Your task to perform on an android device: open app "Messages" Image 0: 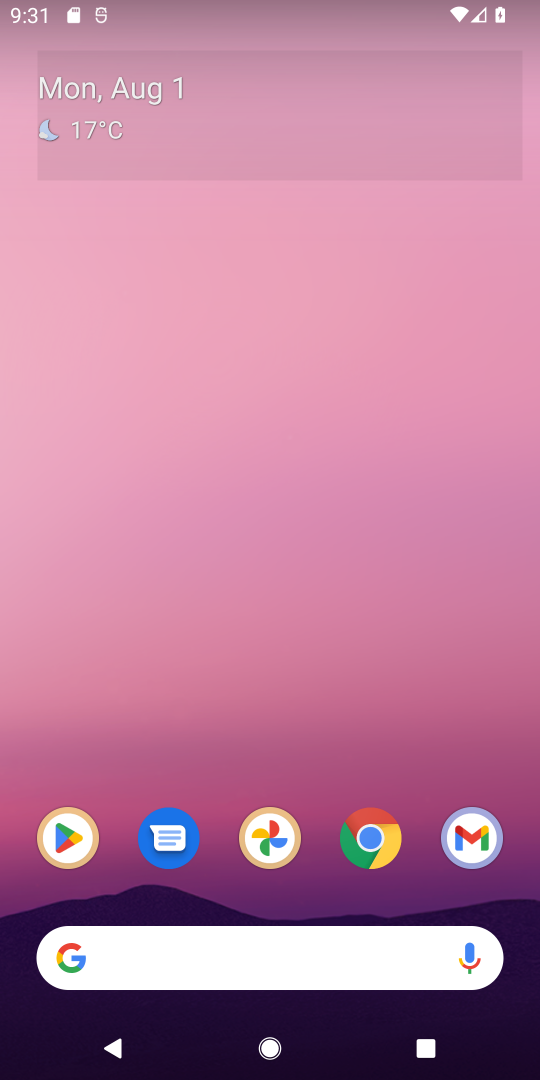
Step 0: press home button
Your task to perform on an android device: open app "Messages" Image 1: 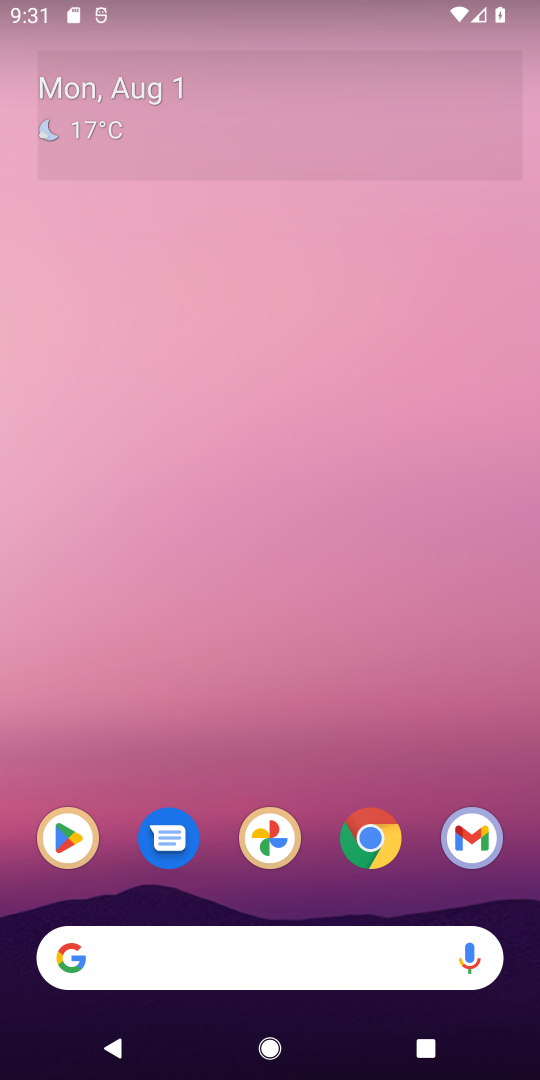
Step 1: click (57, 835)
Your task to perform on an android device: open app "Messages" Image 2: 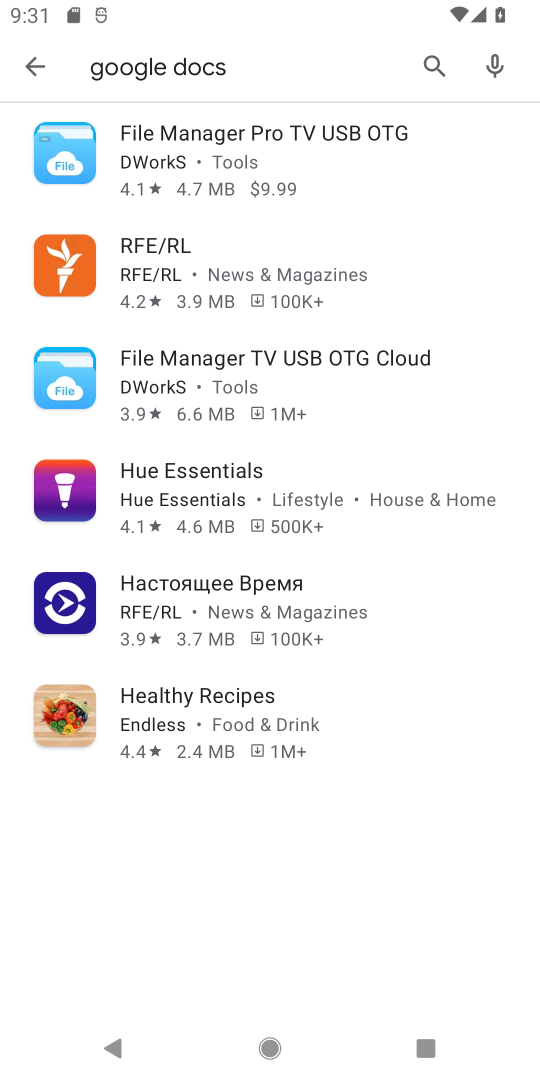
Step 2: click (437, 64)
Your task to perform on an android device: open app "Messages" Image 3: 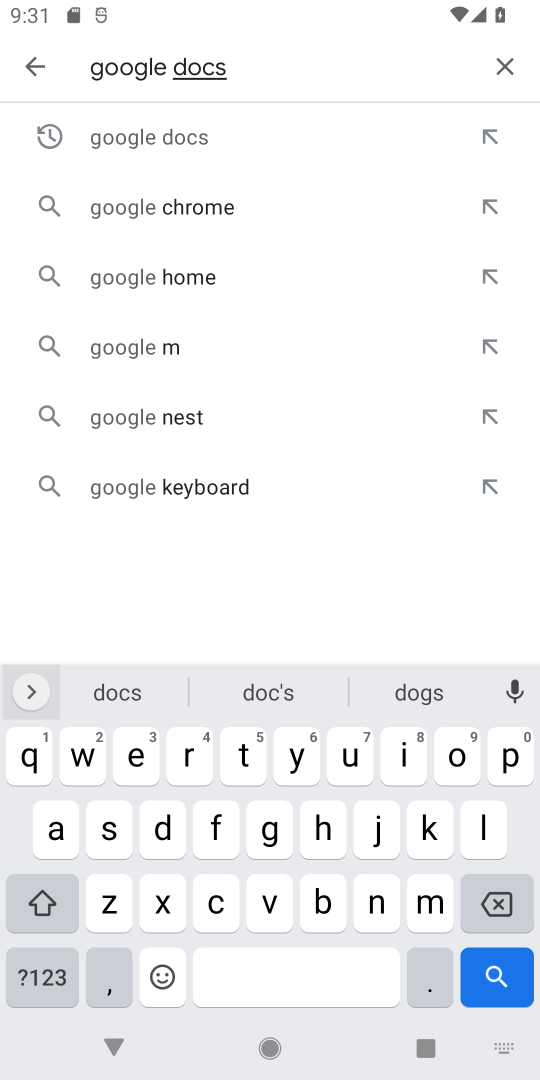
Step 3: click (506, 51)
Your task to perform on an android device: open app "Messages" Image 4: 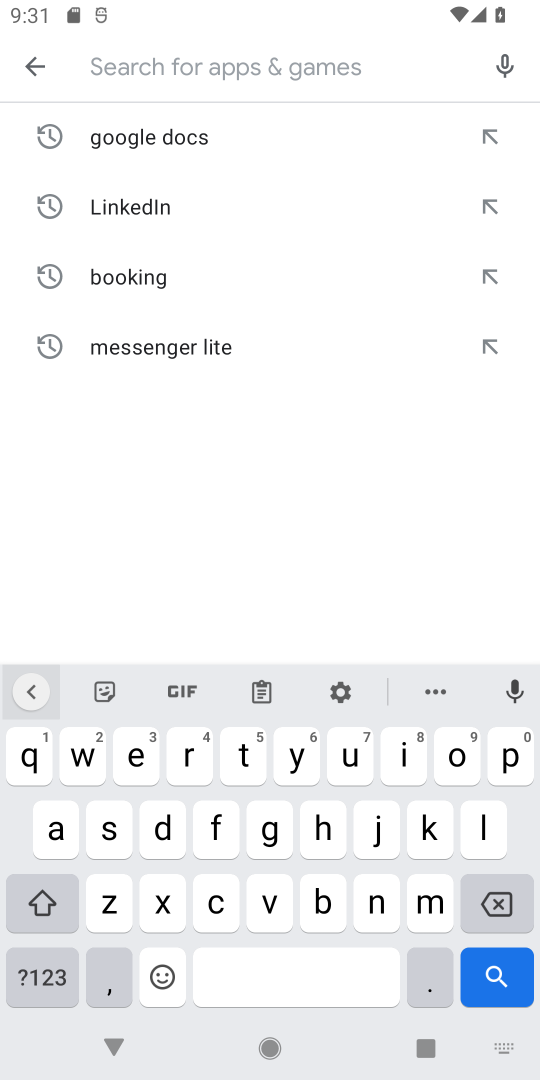
Step 4: type "messeges"
Your task to perform on an android device: open app "Messages" Image 5: 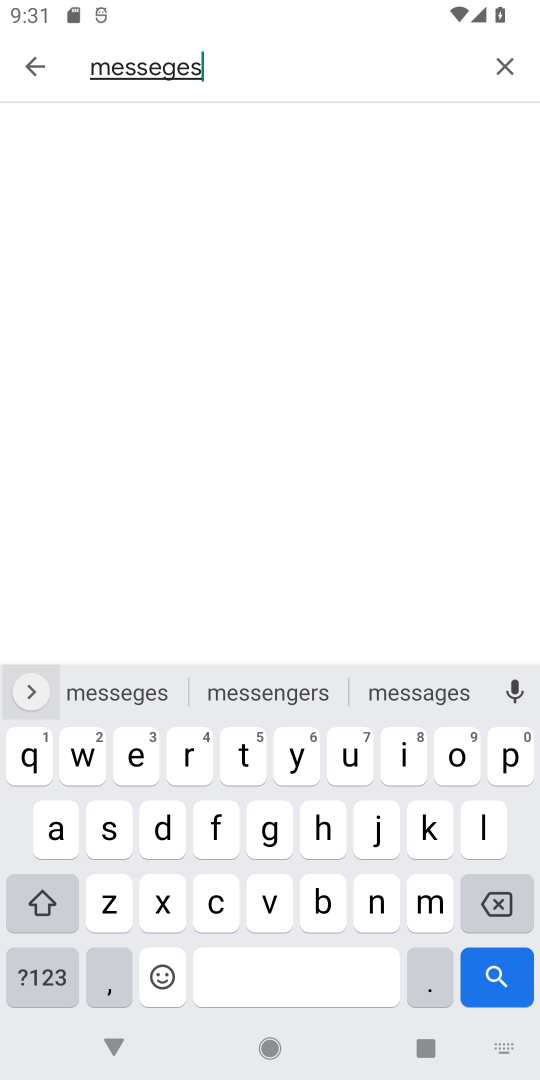
Step 5: click (489, 1000)
Your task to perform on an android device: open app "Messages" Image 6: 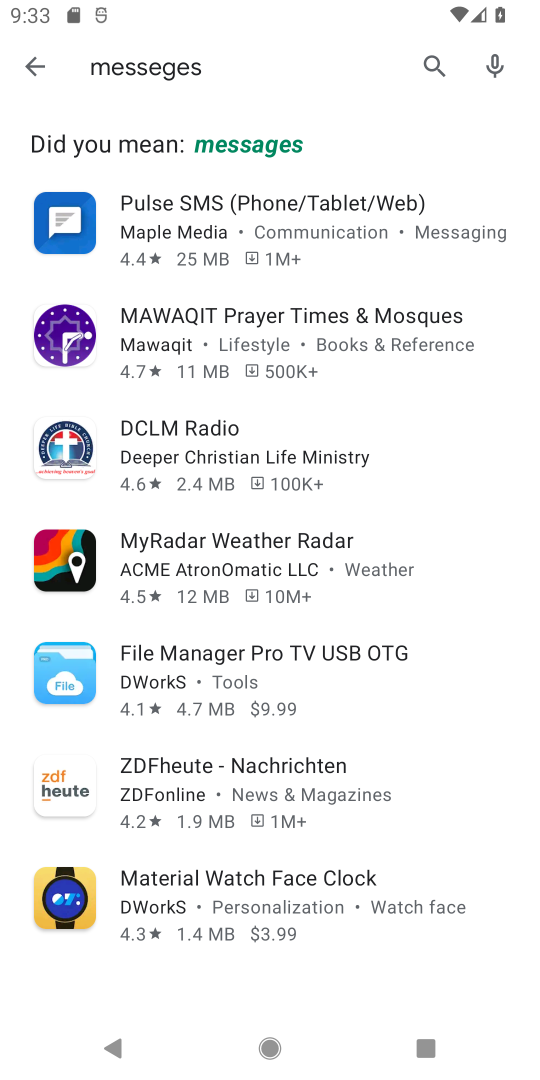
Step 6: task complete